Your task to perform on an android device: open a bookmark in the chrome app Image 0: 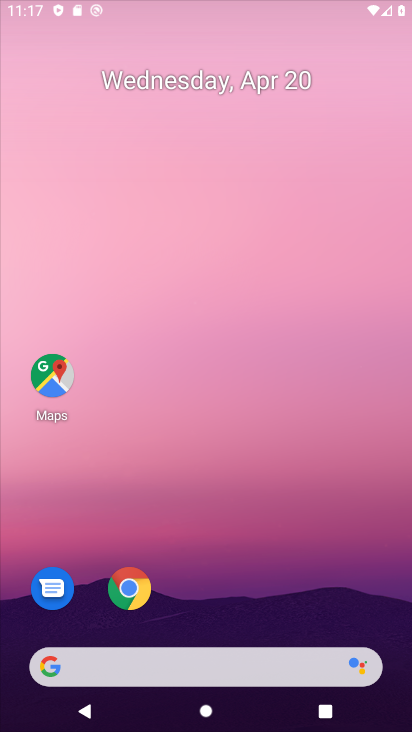
Step 0: drag from (286, 611) to (384, 78)
Your task to perform on an android device: open a bookmark in the chrome app Image 1: 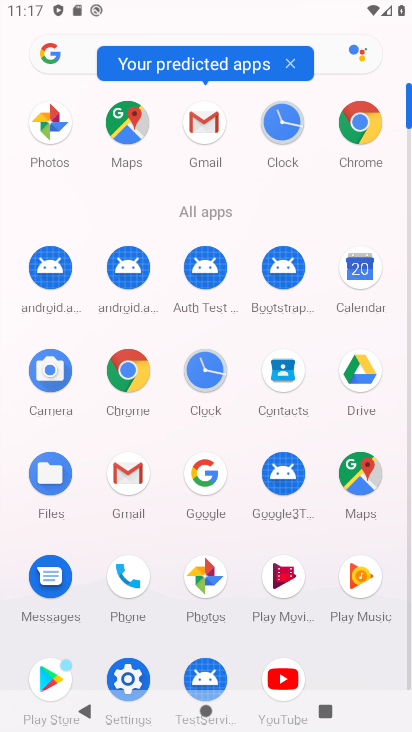
Step 1: click (369, 138)
Your task to perform on an android device: open a bookmark in the chrome app Image 2: 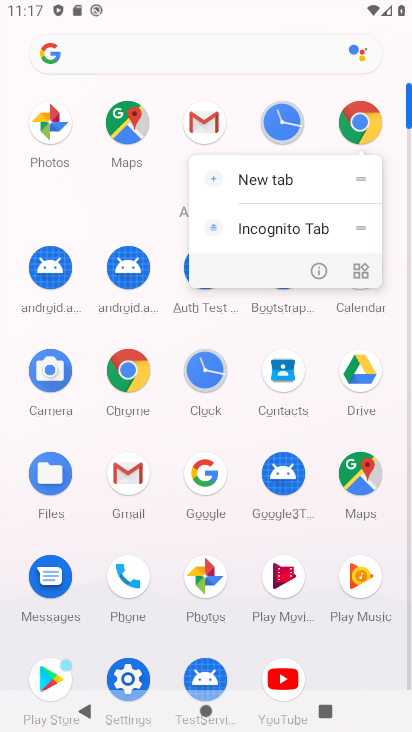
Step 2: click (362, 130)
Your task to perform on an android device: open a bookmark in the chrome app Image 3: 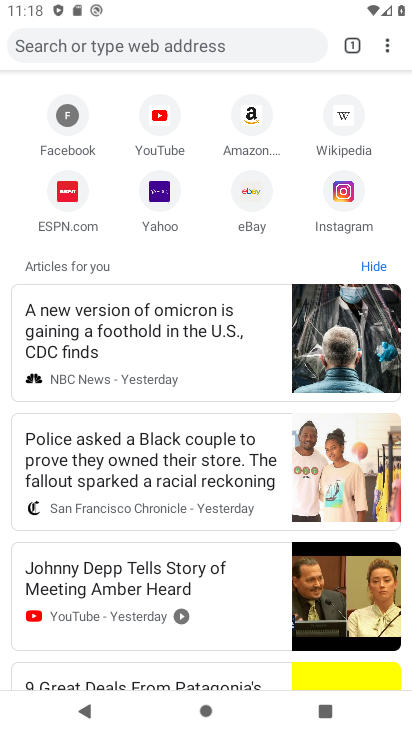
Step 3: task complete